Your task to perform on an android device: open app "Adobe Acrobat Reader: Edit PDF" (install if not already installed) and enter user name: "arthritis@inbox.com" and password: "scythes" Image 0: 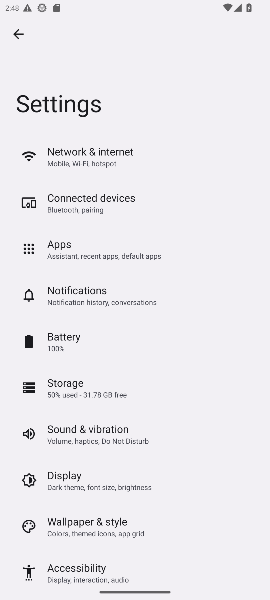
Step 0: press home button
Your task to perform on an android device: open app "Adobe Acrobat Reader: Edit PDF" (install if not already installed) and enter user name: "arthritis@inbox.com" and password: "scythes" Image 1: 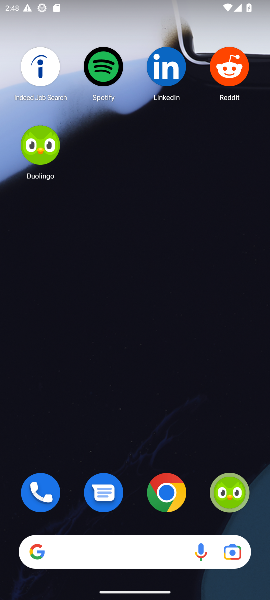
Step 1: drag from (135, 522) to (126, 184)
Your task to perform on an android device: open app "Adobe Acrobat Reader: Edit PDF" (install if not already installed) and enter user name: "arthritis@inbox.com" and password: "scythes" Image 2: 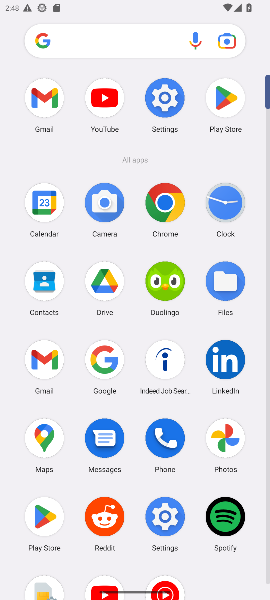
Step 2: drag from (221, 107) to (116, 356)
Your task to perform on an android device: open app "Adobe Acrobat Reader: Edit PDF" (install if not already installed) and enter user name: "arthritis@inbox.com" and password: "scythes" Image 3: 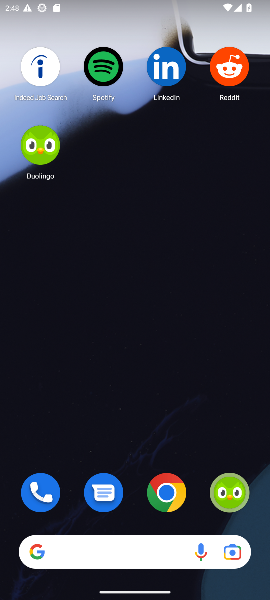
Step 3: drag from (143, 525) to (176, 8)
Your task to perform on an android device: open app "Adobe Acrobat Reader: Edit PDF" (install if not already installed) and enter user name: "arthritis@inbox.com" and password: "scythes" Image 4: 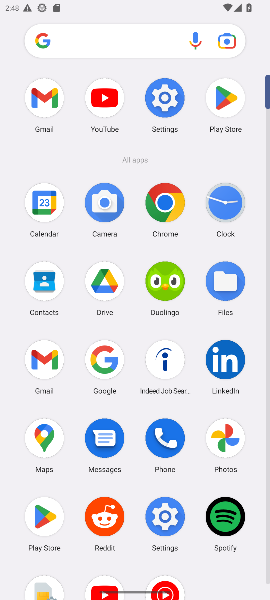
Step 4: drag from (222, 103) to (191, 175)
Your task to perform on an android device: open app "Adobe Acrobat Reader: Edit PDF" (install if not already installed) and enter user name: "arthritis@inbox.com" and password: "scythes" Image 5: 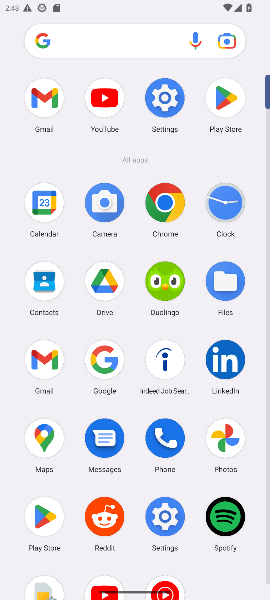
Step 5: drag from (225, 100) to (147, 308)
Your task to perform on an android device: open app "Adobe Acrobat Reader: Edit PDF" (install if not already installed) and enter user name: "arthritis@inbox.com" and password: "scythes" Image 6: 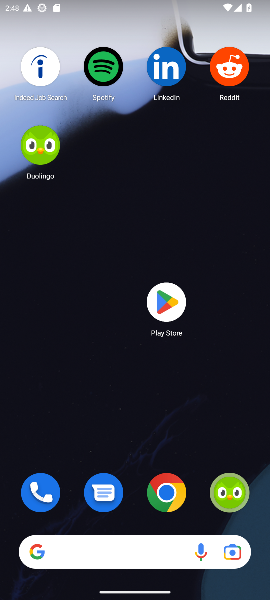
Step 6: click (148, 308)
Your task to perform on an android device: open app "Adobe Acrobat Reader: Edit PDF" (install if not already installed) and enter user name: "arthritis@inbox.com" and password: "scythes" Image 7: 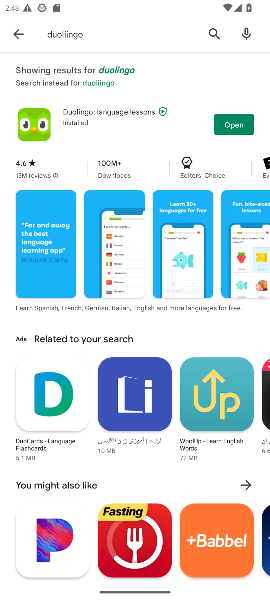
Step 7: click (214, 35)
Your task to perform on an android device: open app "Adobe Acrobat Reader: Edit PDF" (install if not already installed) and enter user name: "arthritis@inbox.com" and password: "scythes" Image 8: 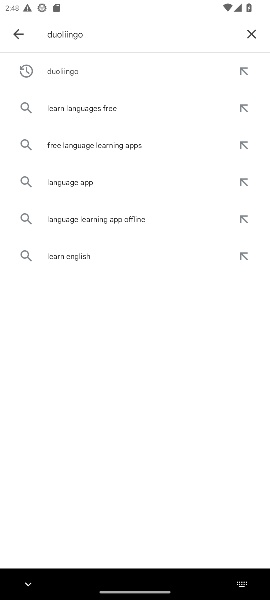
Step 8: click (257, 39)
Your task to perform on an android device: open app "Adobe Acrobat Reader: Edit PDF" (install if not already installed) and enter user name: "arthritis@inbox.com" and password: "scythes" Image 9: 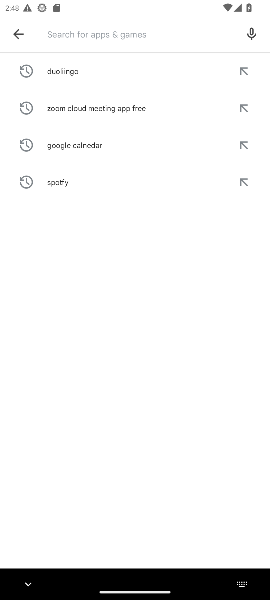
Step 9: type "adobe acrobat"
Your task to perform on an android device: open app "Adobe Acrobat Reader: Edit PDF" (install if not already installed) and enter user name: "arthritis@inbox.com" and password: "scythes" Image 10: 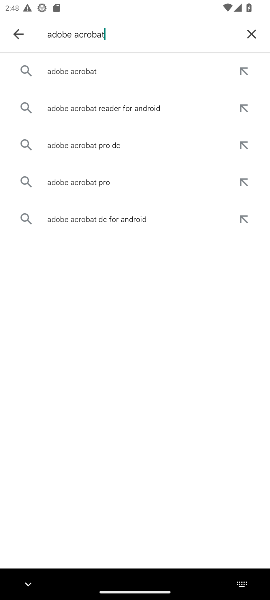
Step 10: click (159, 76)
Your task to perform on an android device: open app "Adobe Acrobat Reader: Edit PDF" (install if not already installed) and enter user name: "arthritis@inbox.com" and password: "scythes" Image 11: 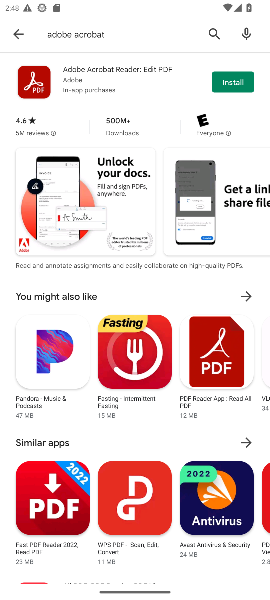
Step 11: click (233, 89)
Your task to perform on an android device: open app "Adobe Acrobat Reader: Edit PDF" (install if not already installed) and enter user name: "arthritis@inbox.com" and password: "scythes" Image 12: 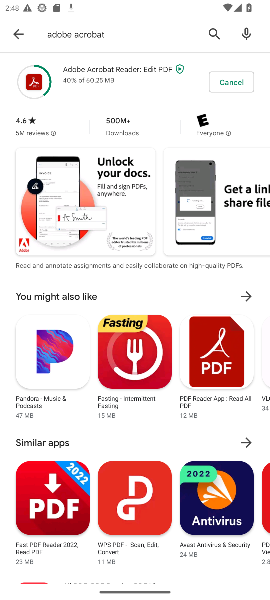
Step 12: task complete